Your task to perform on an android device: change timer sound Image 0: 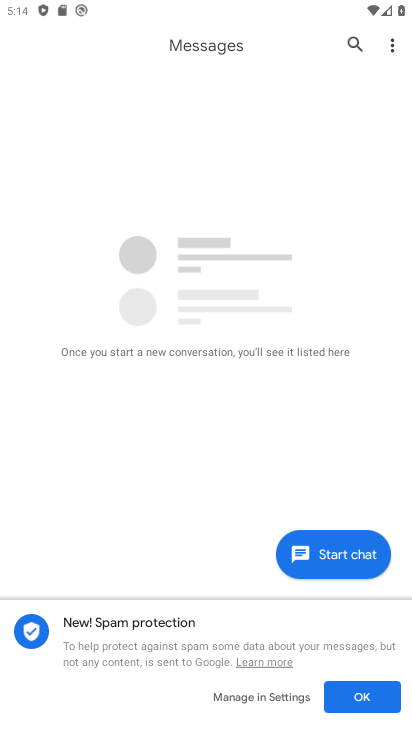
Step 0: press home button
Your task to perform on an android device: change timer sound Image 1: 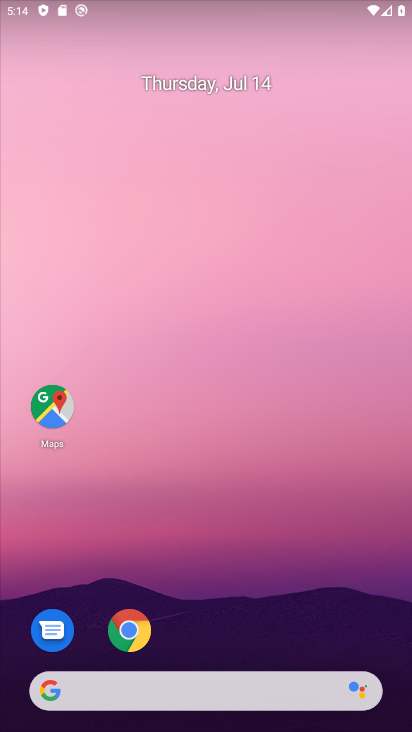
Step 1: drag from (247, 548) to (312, 36)
Your task to perform on an android device: change timer sound Image 2: 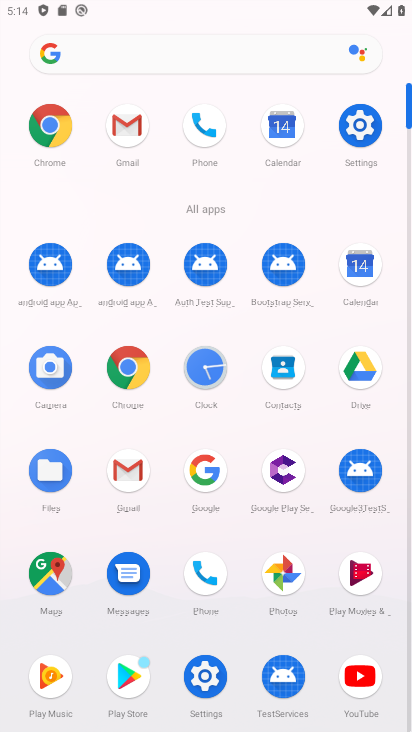
Step 2: click (202, 363)
Your task to perform on an android device: change timer sound Image 3: 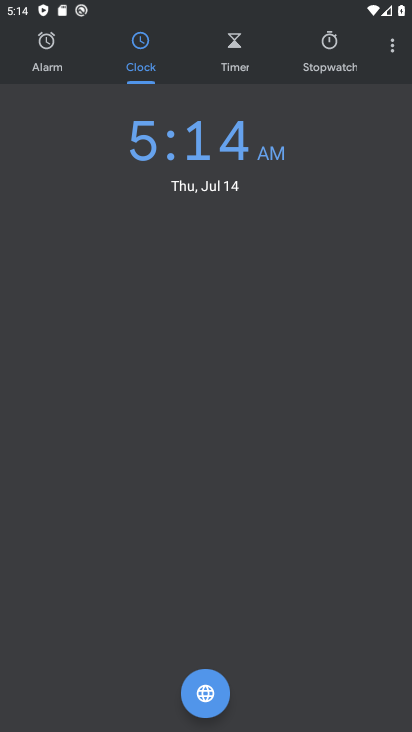
Step 3: click (391, 50)
Your task to perform on an android device: change timer sound Image 4: 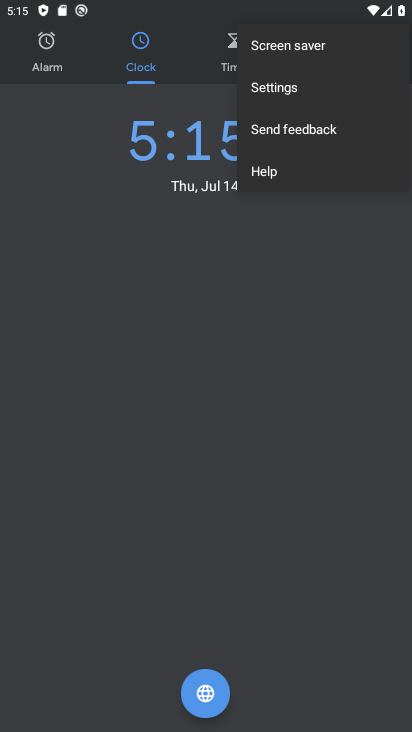
Step 4: click (277, 92)
Your task to perform on an android device: change timer sound Image 5: 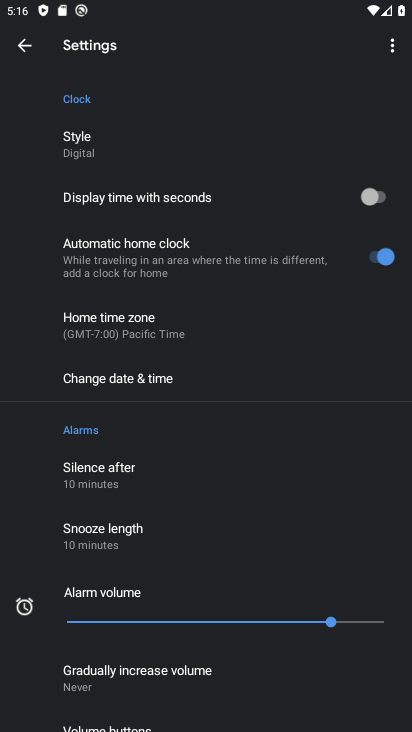
Step 5: drag from (320, 531) to (327, 219)
Your task to perform on an android device: change timer sound Image 6: 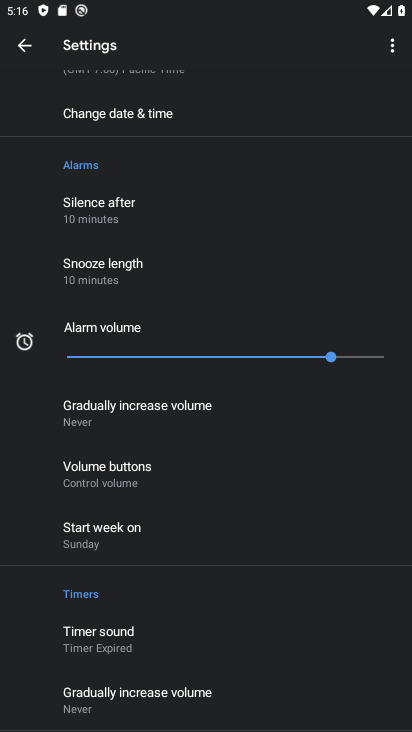
Step 6: click (100, 642)
Your task to perform on an android device: change timer sound Image 7: 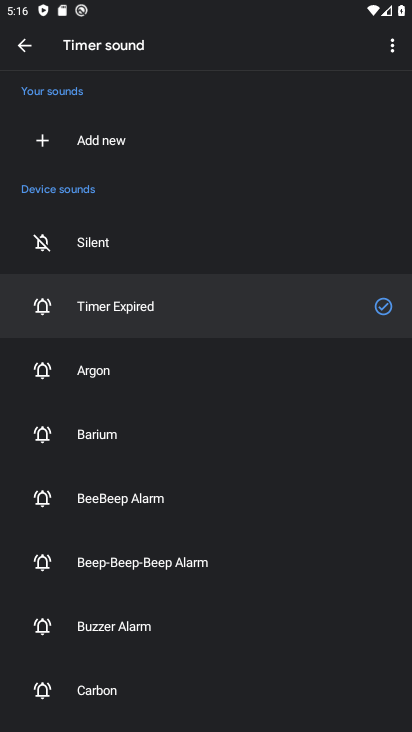
Step 7: click (82, 428)
Your task to perform on an android device: change timer sound Image 8: 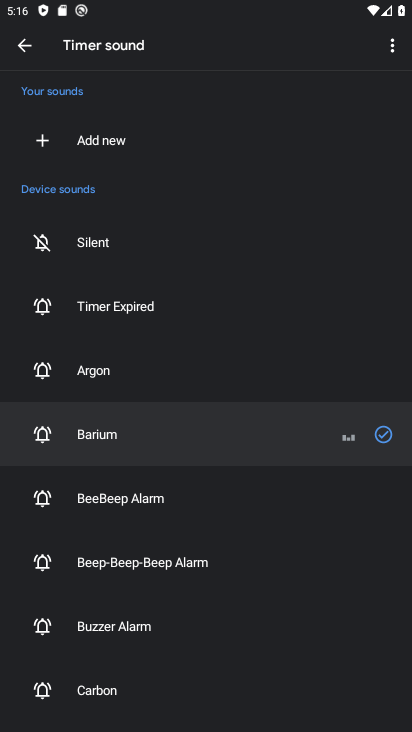
Step 8: task complete